Your task to perform on an android device: Turn on the flashlight Image 0: 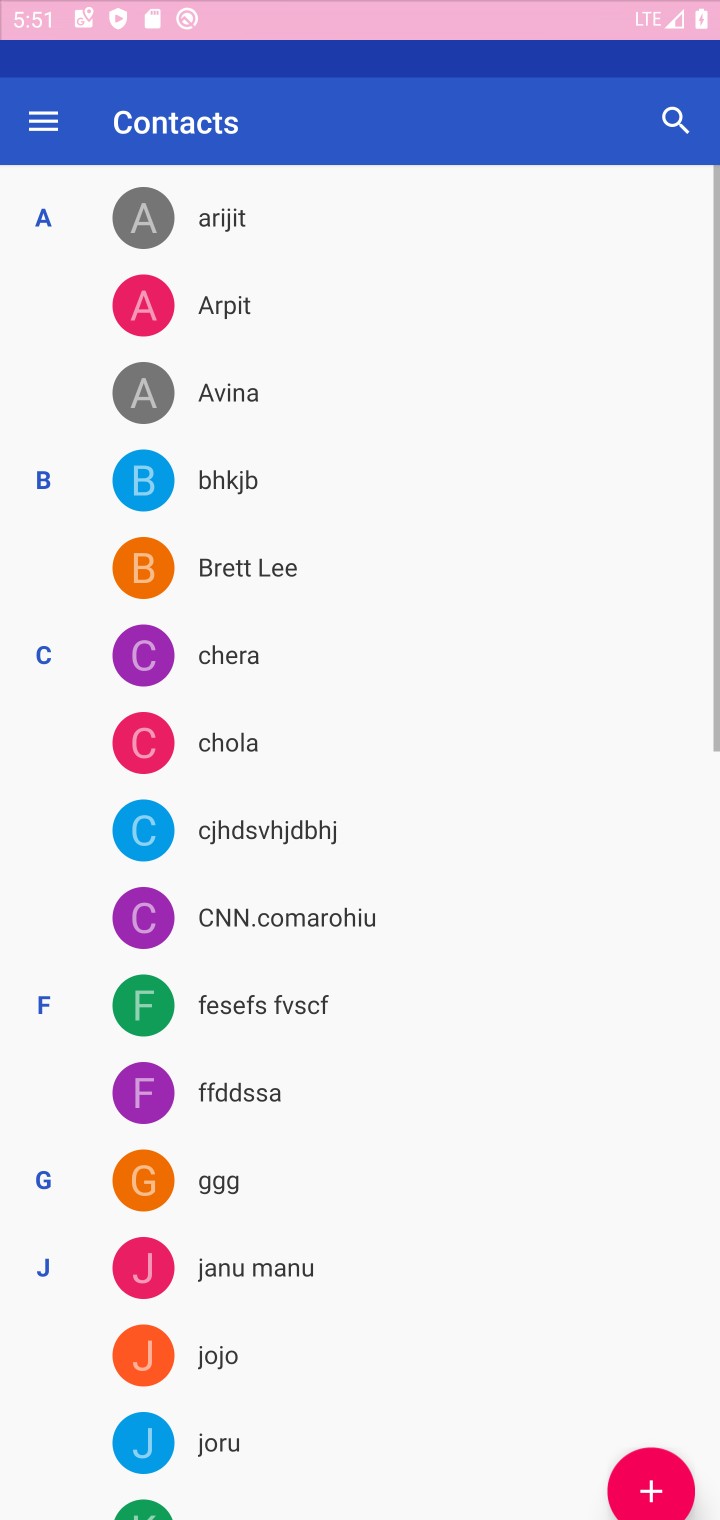
Step 0: press back button
Your task to perform on an android device: Turn on the flashlight Image 1: 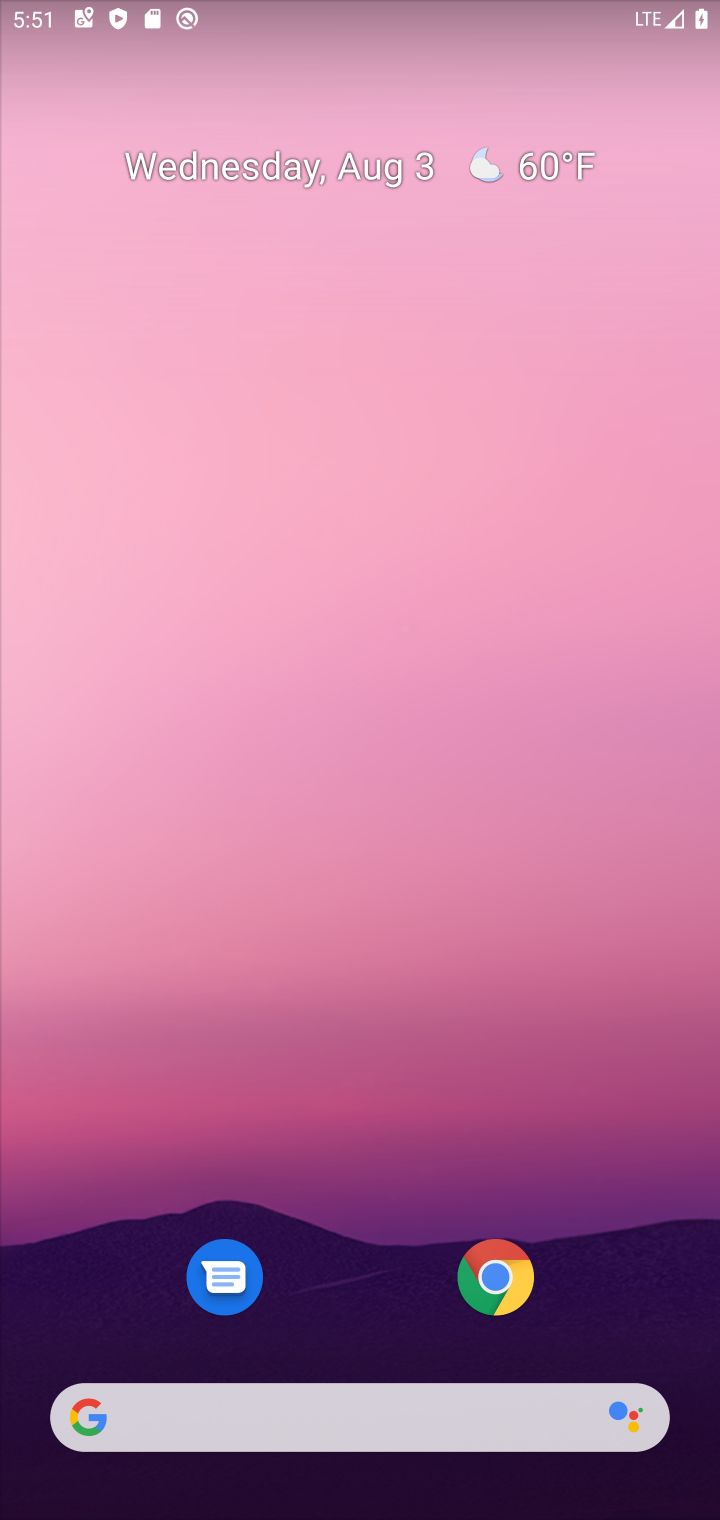
Step 1: drag from (345, 1269) to (438, 76)
Your task to perform on an android device: Turn on the flashlight Image 2: 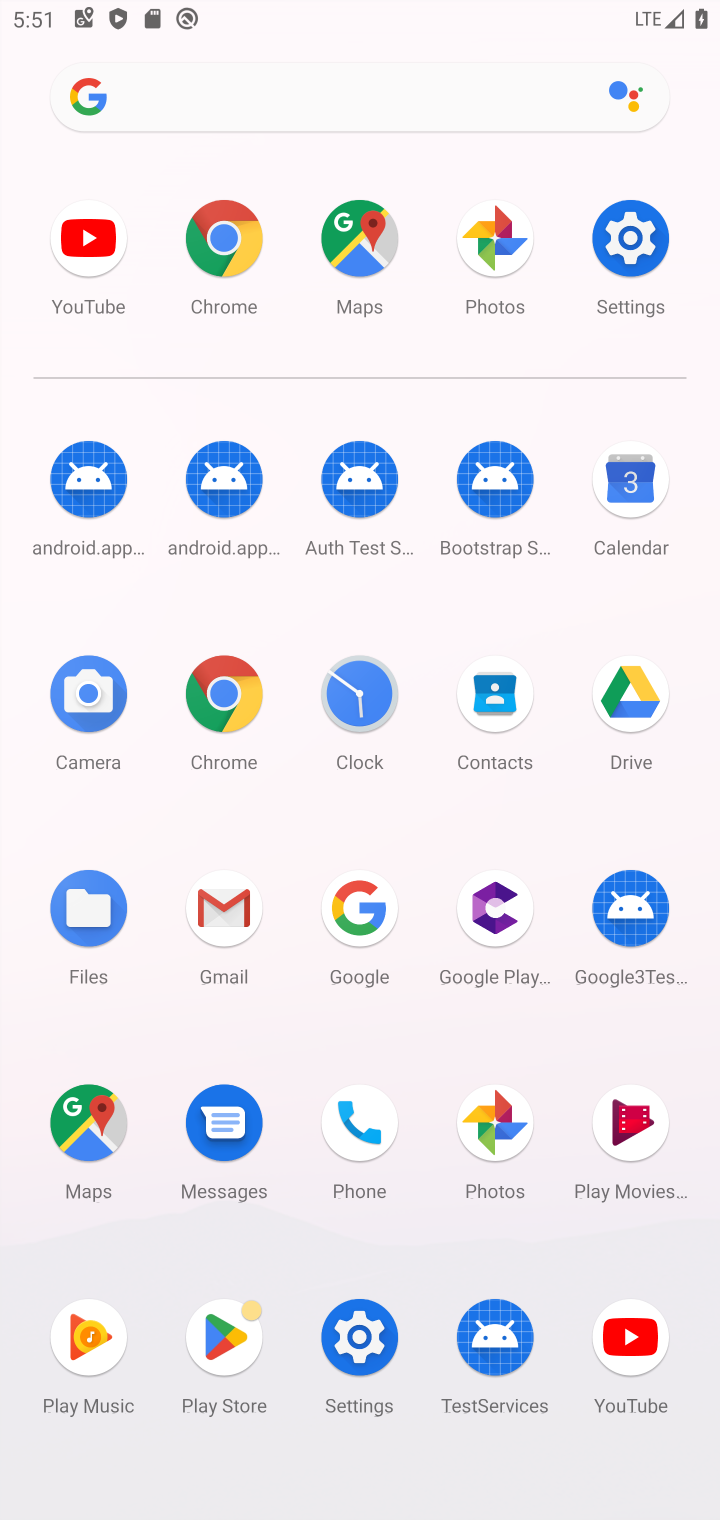
Step 2: click (627, 221)
Your task to perform on an android device: Turn on the flashlight Image 3: 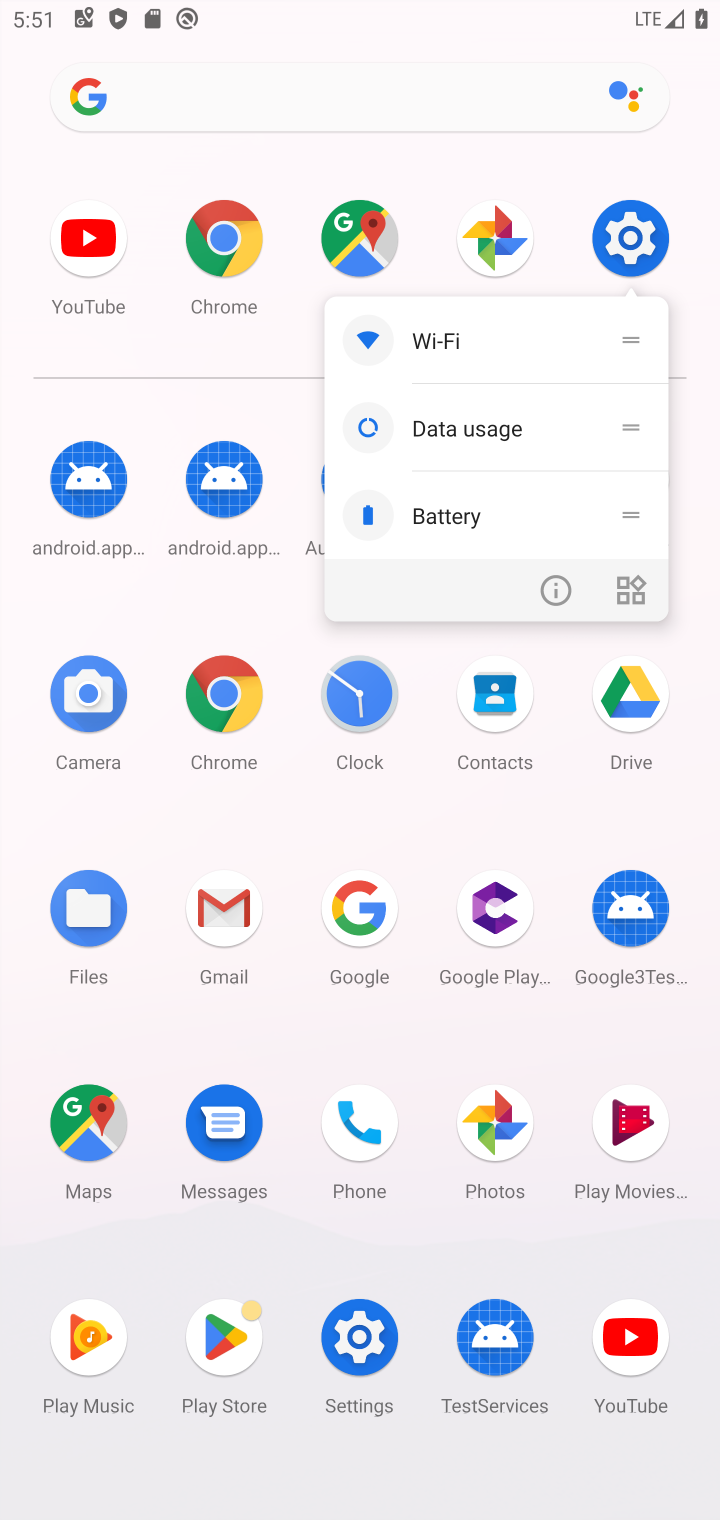
Step 3: click (631, 232)
Your task to perform on an android device: Turn on the flashlight Image 4: 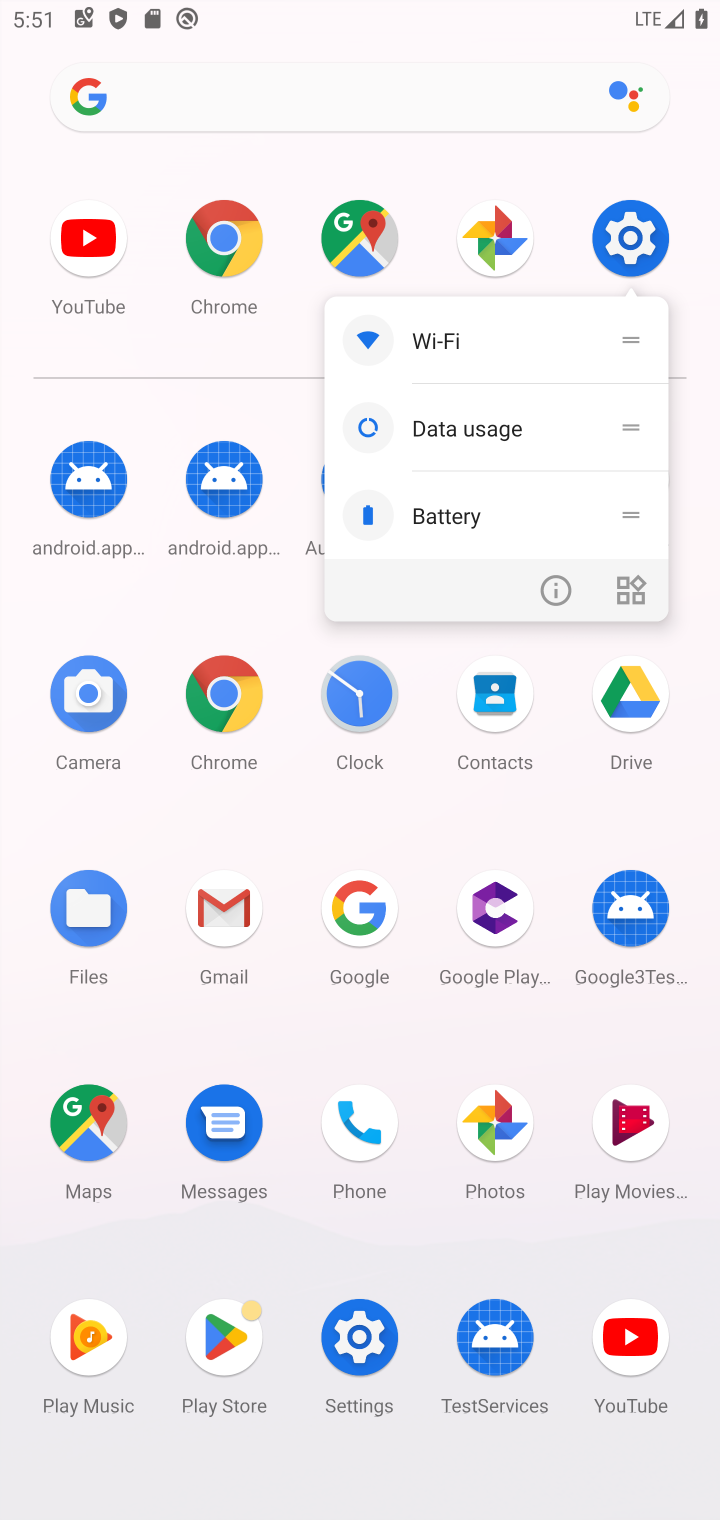
Step 4: click (631, 241)
Your task to perform on an android device: Turn on the flashlight Image 5: 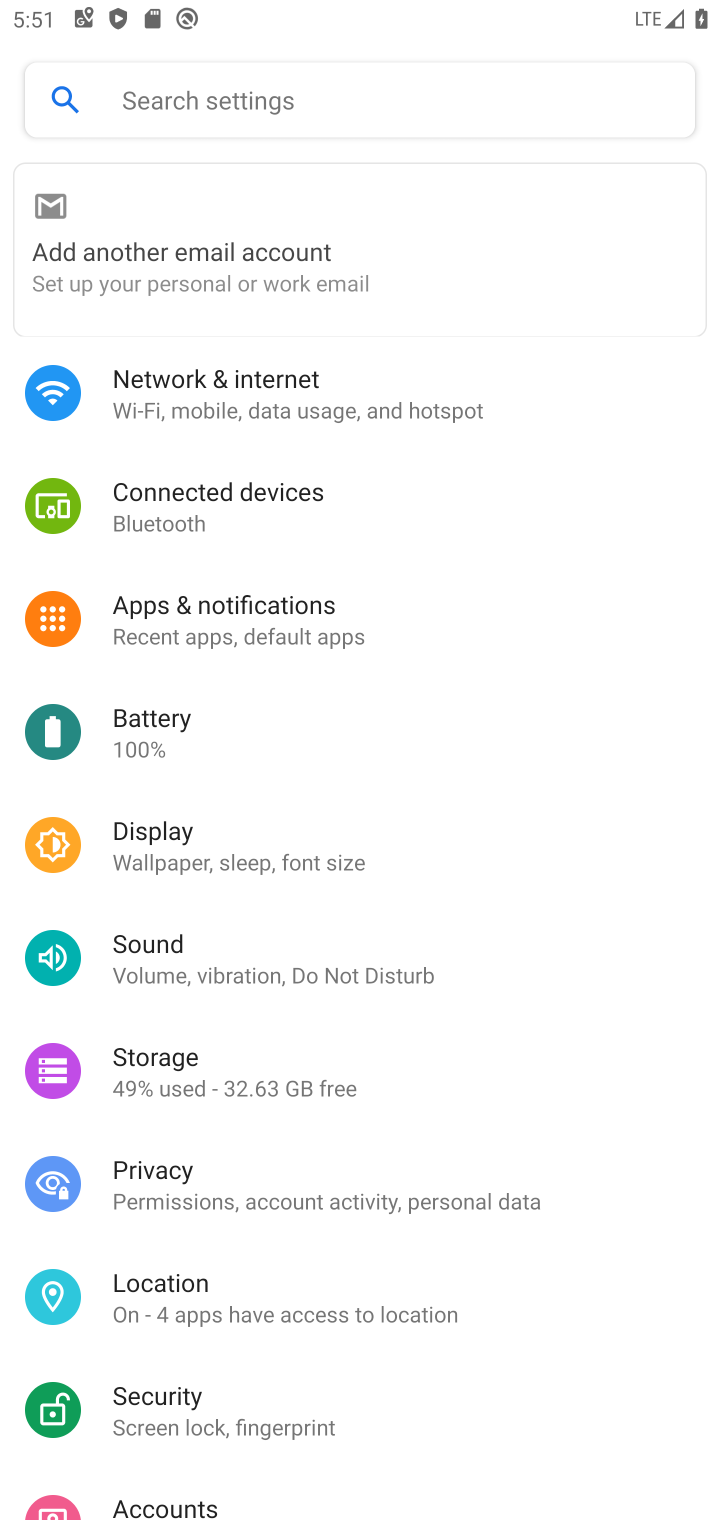
Step 5: click (264, 102)
Your task to perform on an android device: Turn on the flashlight Image 6: 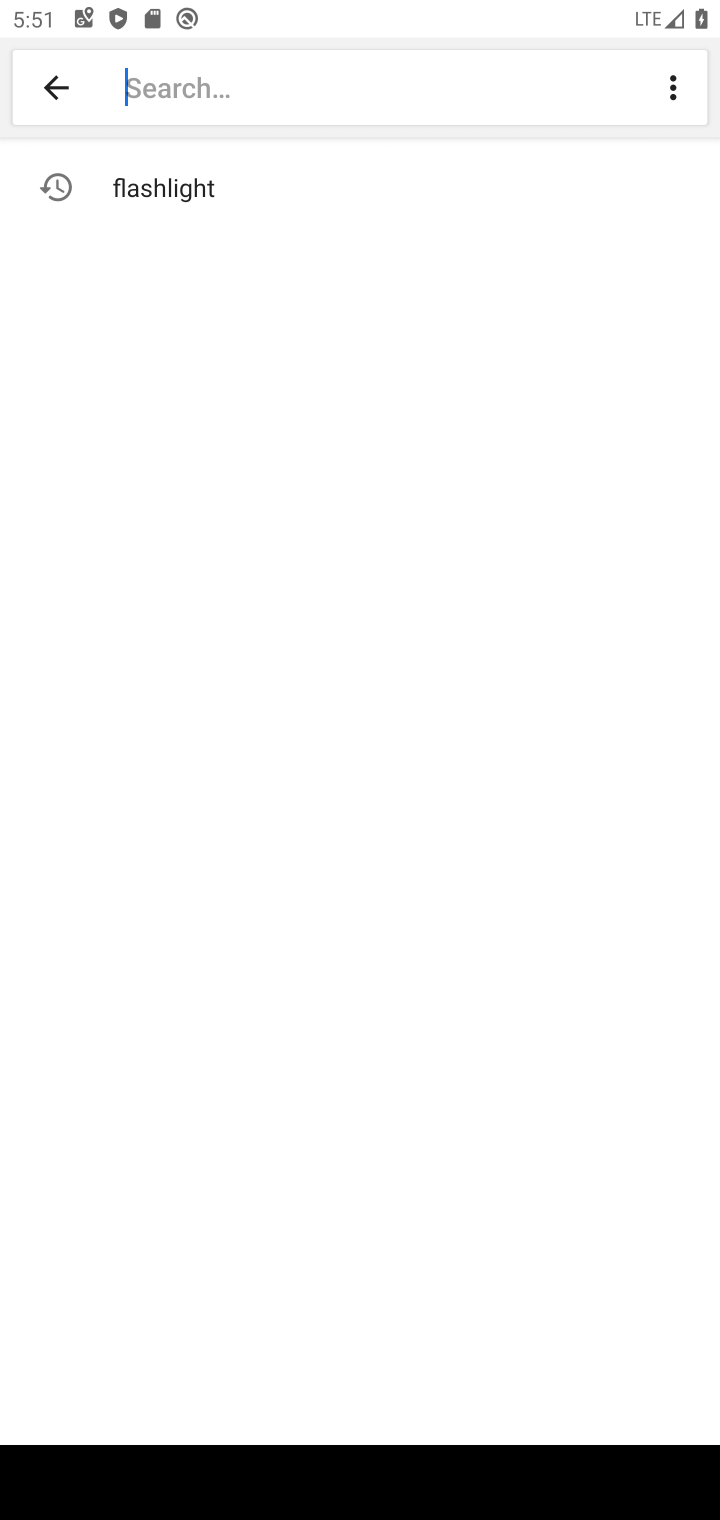
Step 6: type "flashlight"
Your task to perform on an android device: Turn on the flashlight Image 7: 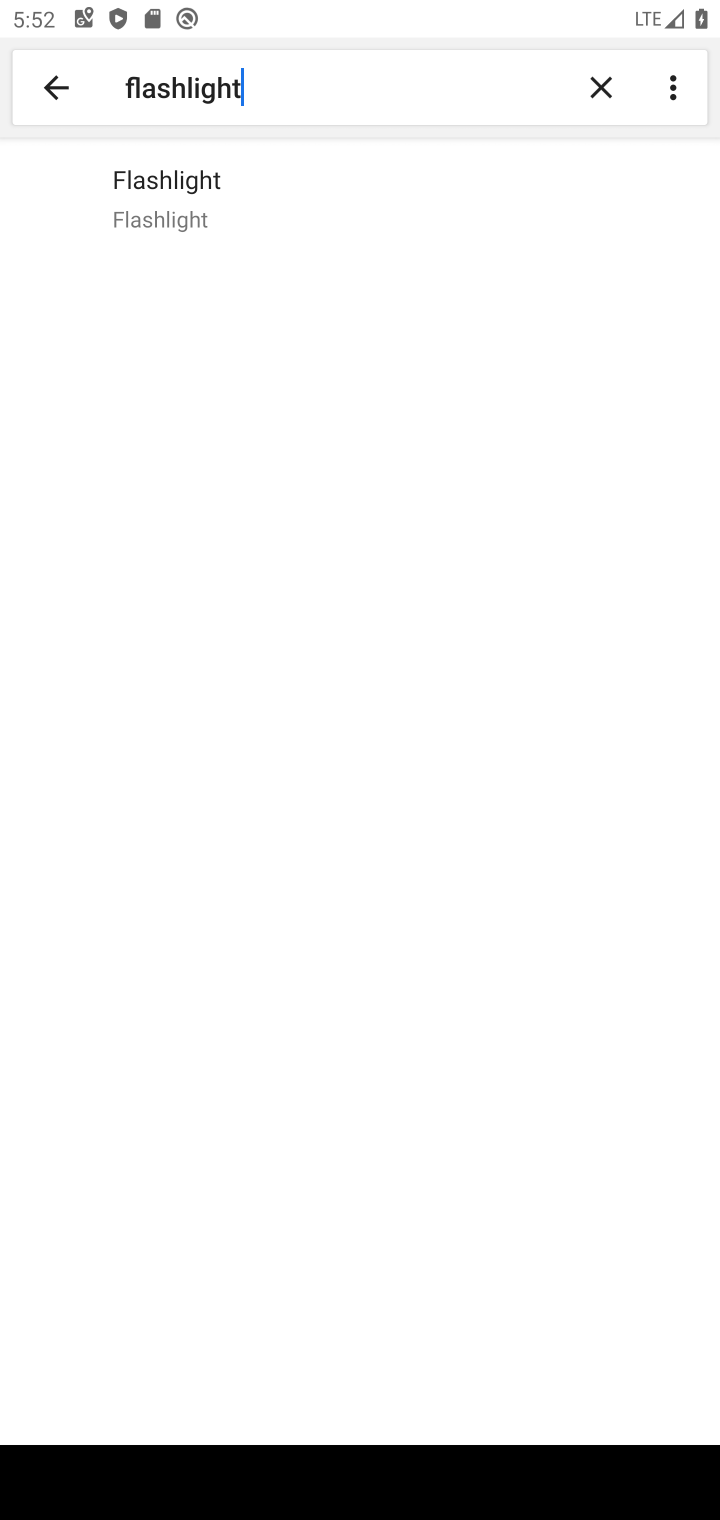
Step 7: click (210, 177)
Your task to perform on an android device: Turn on the flashlight Image 8: 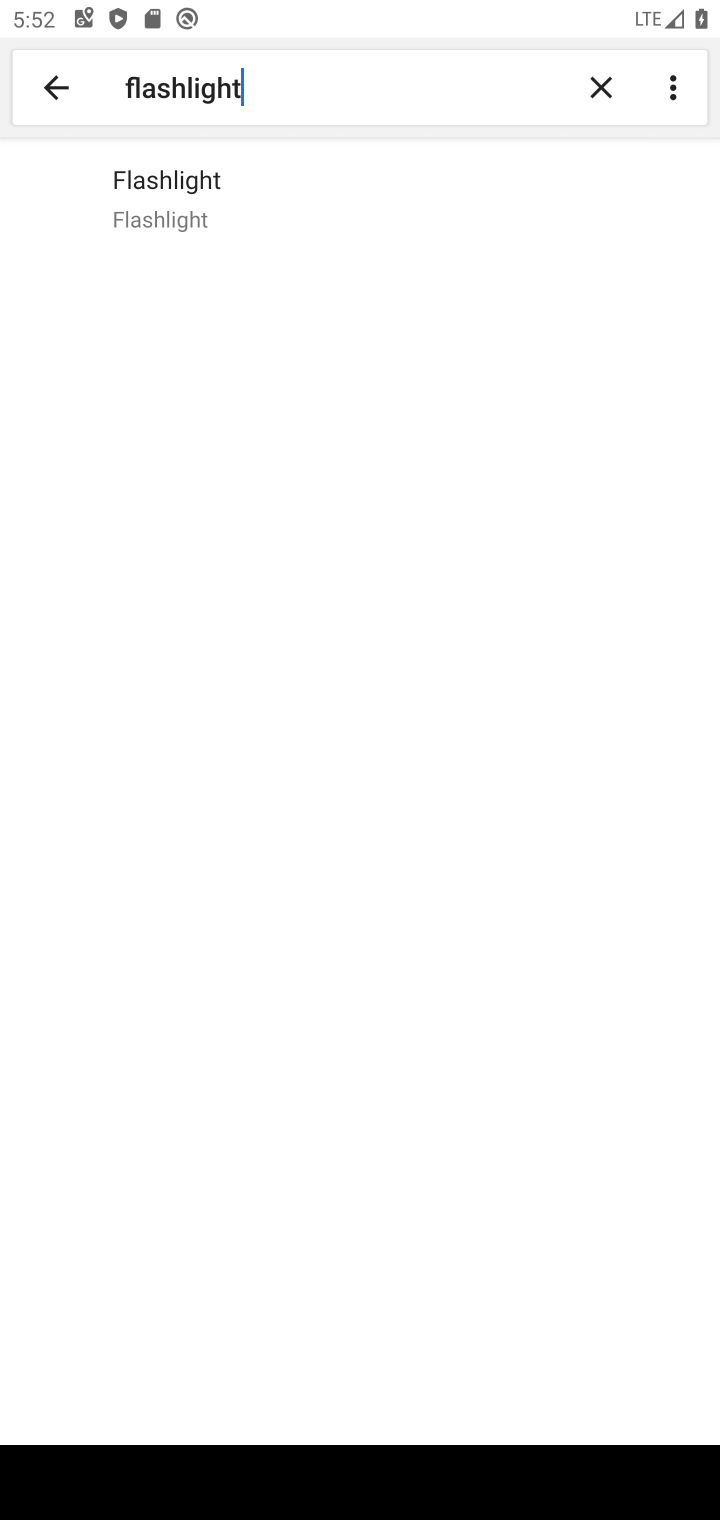
Step 8: click (243, 136)
Your task to perform on an android device: Turn on the flashlight Image 9: 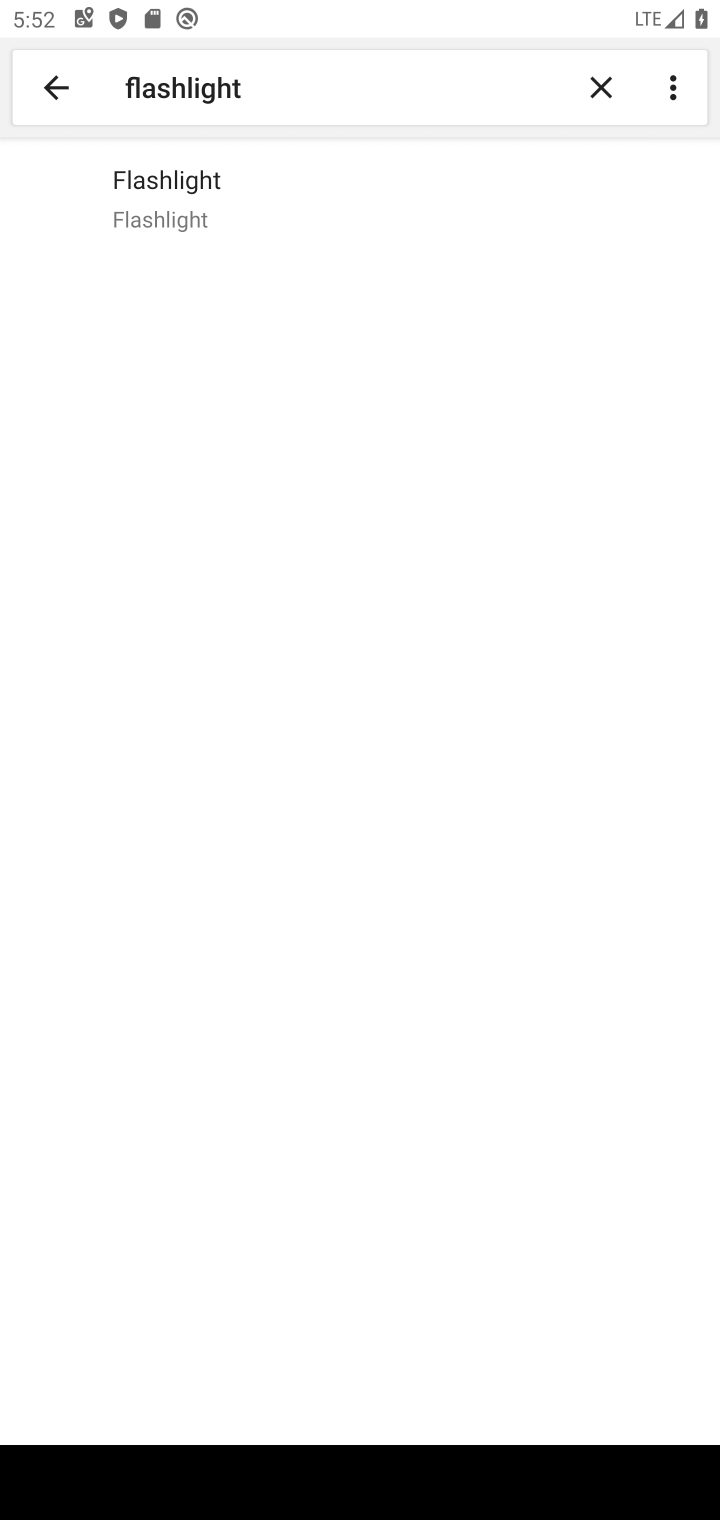
Step 9: task complete